Your task to perform on an android device: What's the time in San Francisco? Image 0: 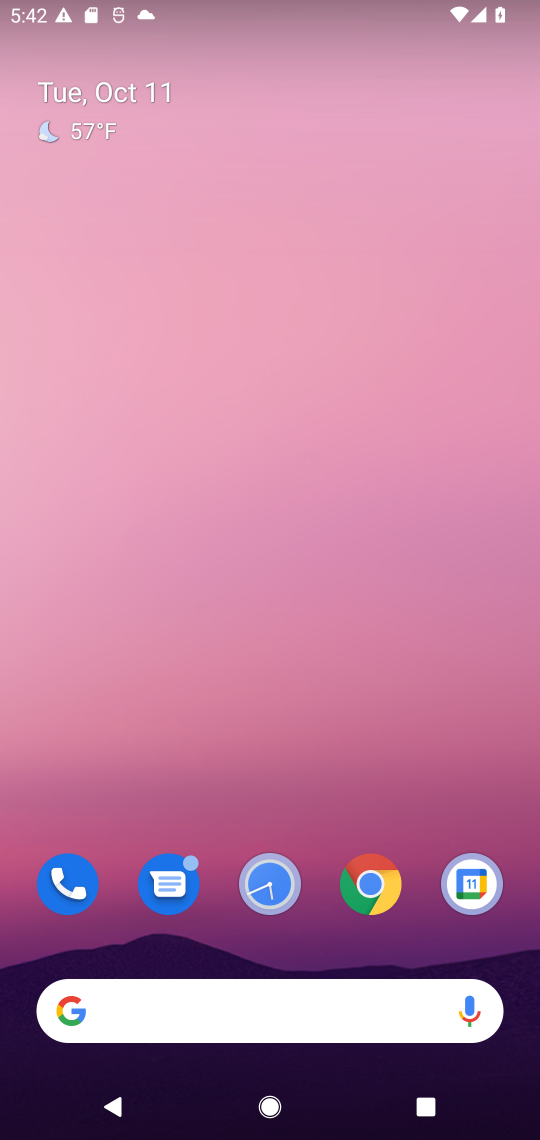
Step 0: drag from (330, 948) to (338, 62)
Your task to perform on an android device: What's the time in San Francisco? Image 1: 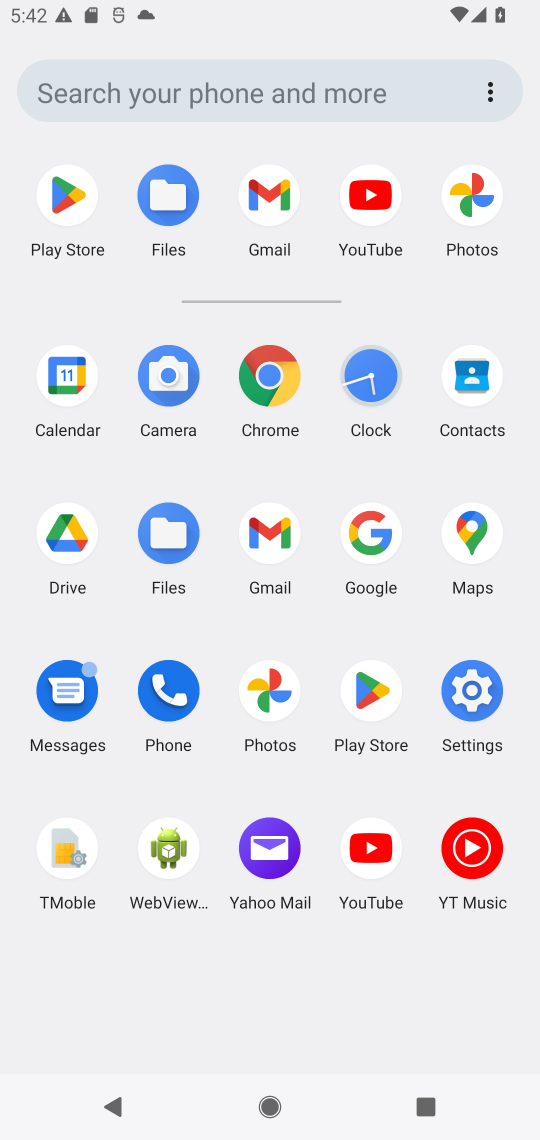
Step 1: click (265, 376)
Your task to perform on an android device: What's the time in San Francisco? Image 2: 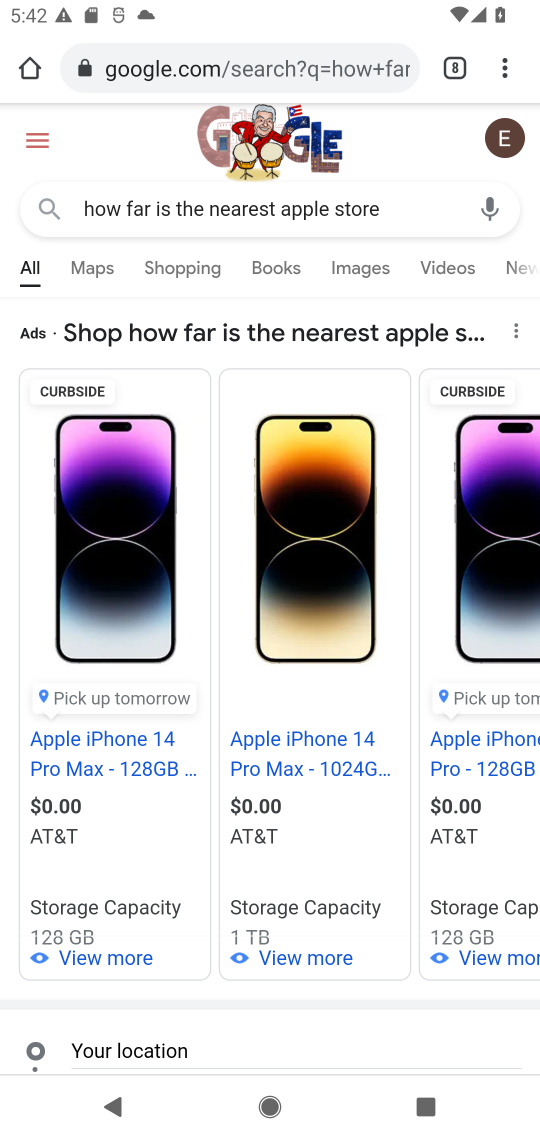
Step 2: click (324, 209)
Your task to perform on an android device: What's the time in San Francisco? Image 3: 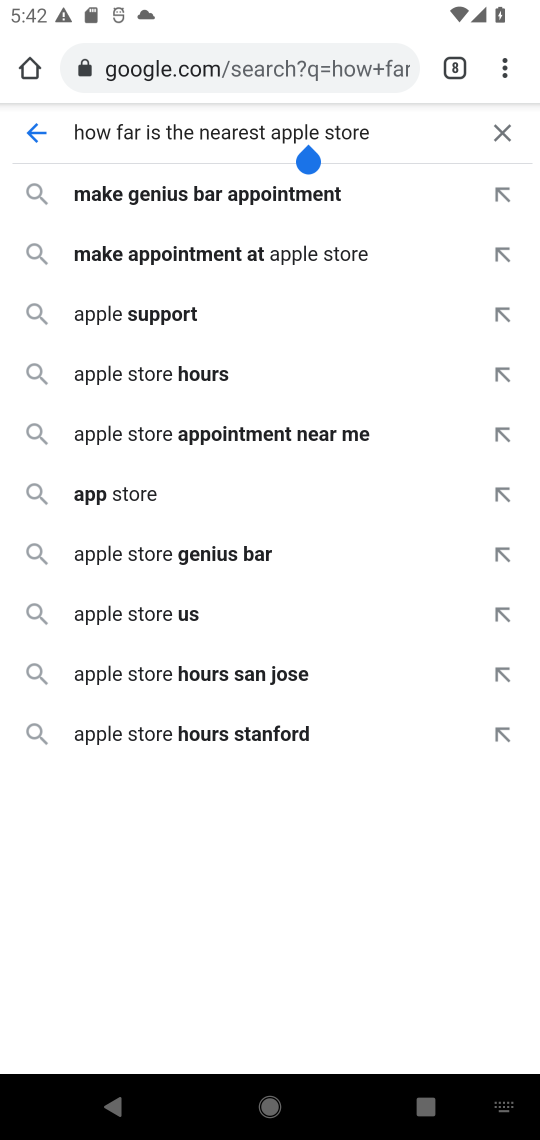
Step 3: click (490, 131)
Your task to perform on an android device: What's the time in San Francisco? Image 4: 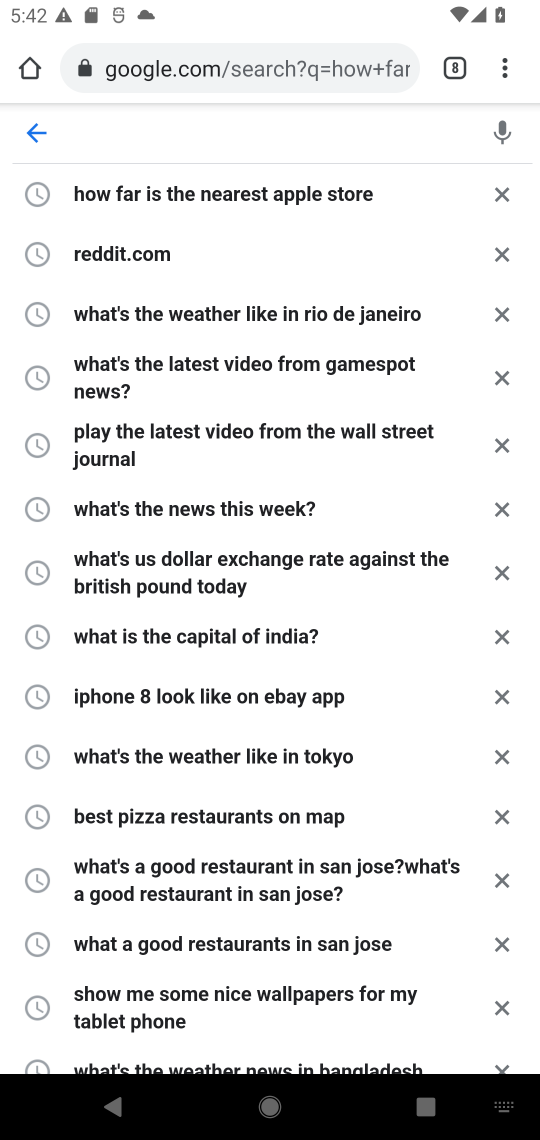
Step 4: type "What's the time in San Francisco?"
Your task to perform on an android device: What's the time in San Francisco? Image 5: 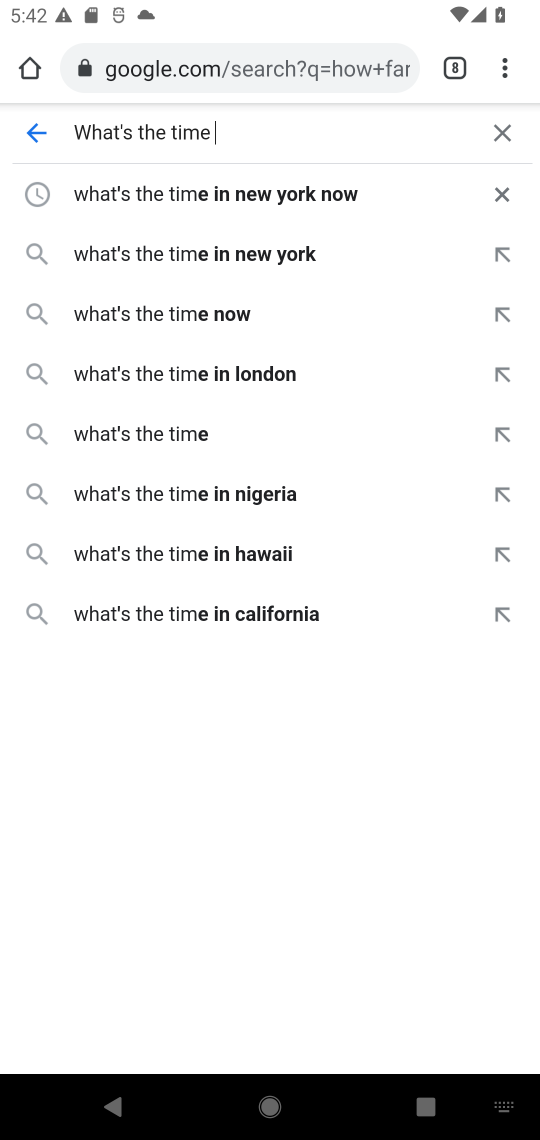
Step 5: type ""
Your task to perform on an android device: What's the time in San Francisco? Image 6: 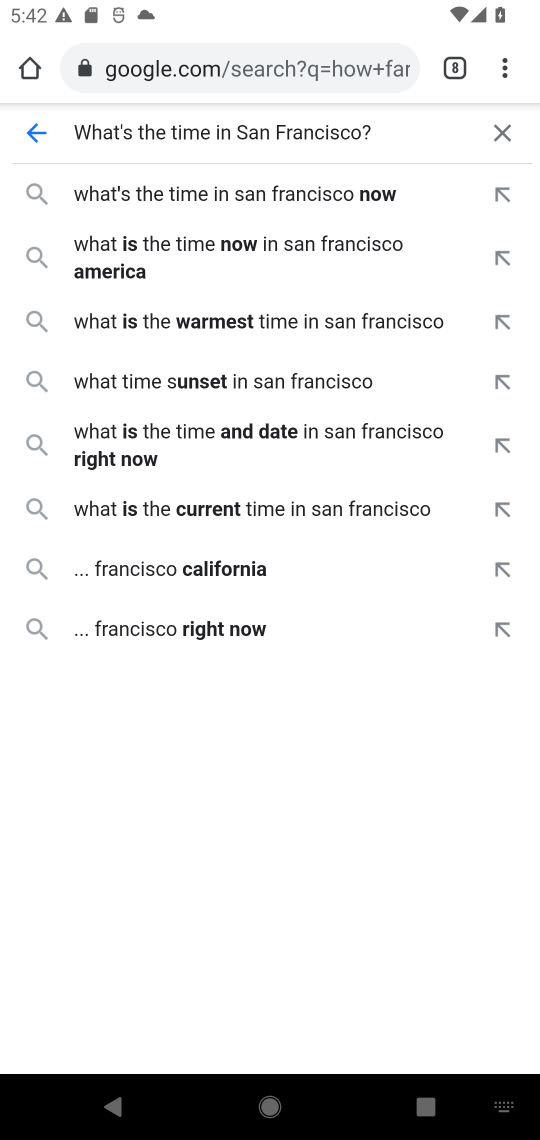
Step 6: click (261, 141)
Your task to perform on an android device: What's the time in San Francisco? Image 7: 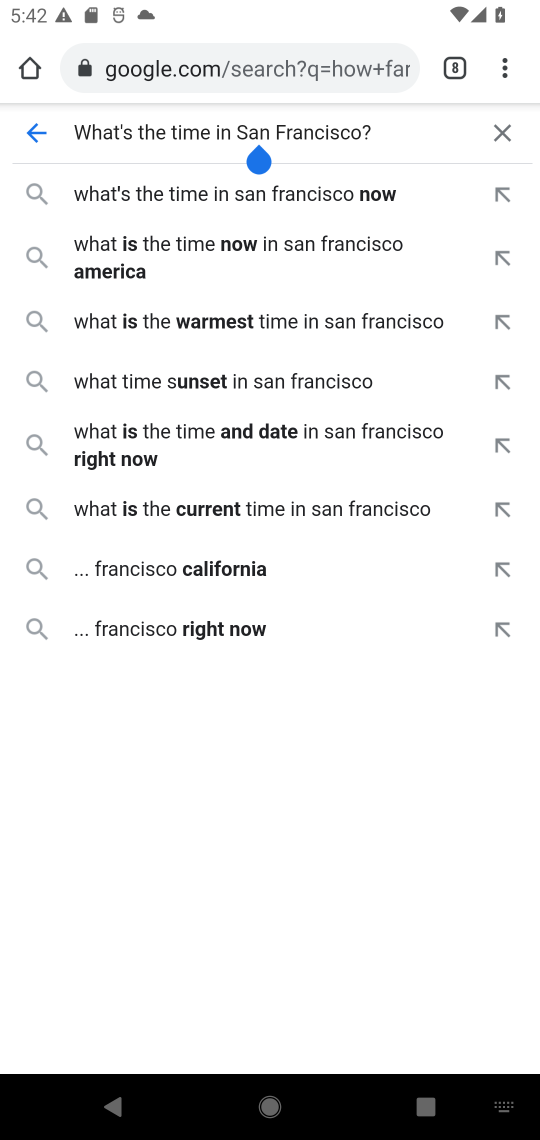
Step 7: click (366, 203)
Your task to perform on an android device: What's the time in San Francisco? Image 8: 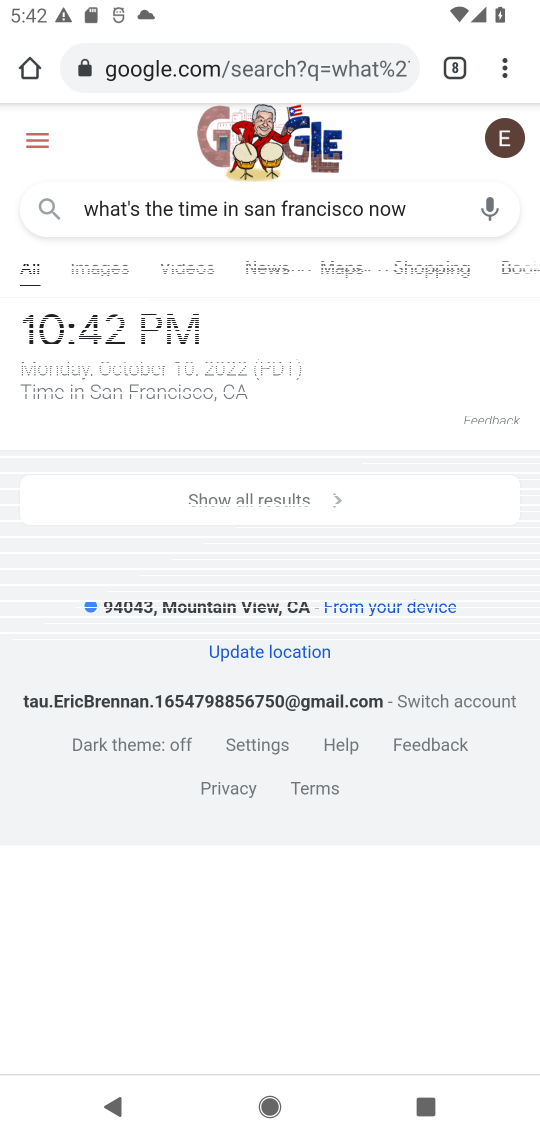
Step 8: task complete